Your task to perform on an android device: turn on the 12-hour format for clock Image 0: 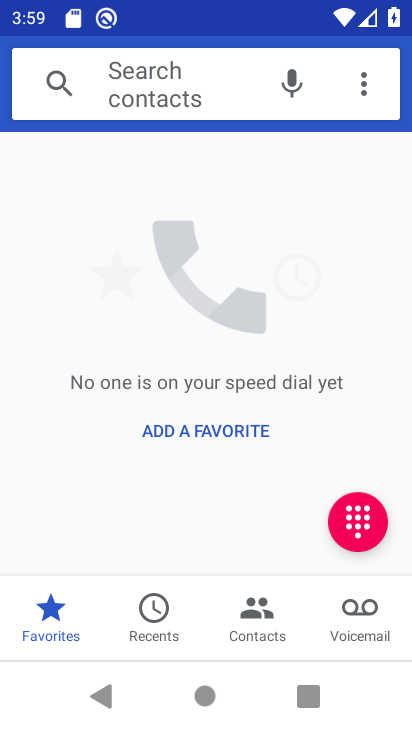
Step 0: drag from (154, 611) to (337, 121)
Your task to perform on an android device: turn on the 12-hour format for clock Image 1: 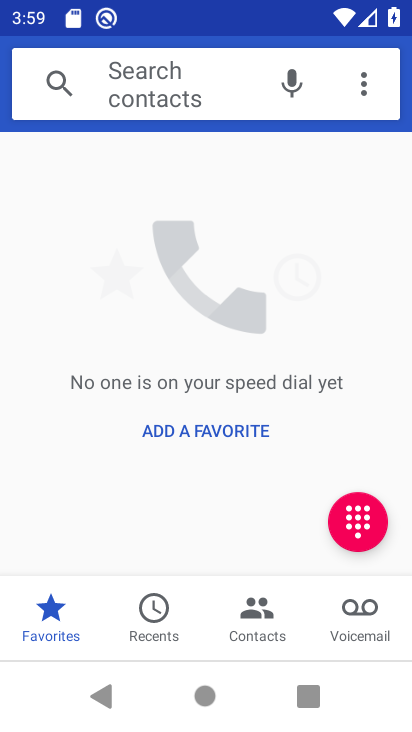
Step 1: press home button
Your task to perform on an android device: turn on the 12-hour format for clock Image 2: 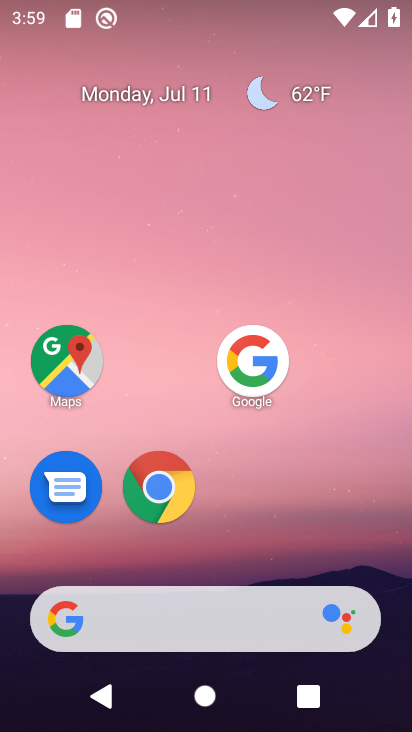
Step 2: drag from (174, 619) to (292, 140)
Your task to perform on an android device: turn on the 12-hour format for clock Image 3: 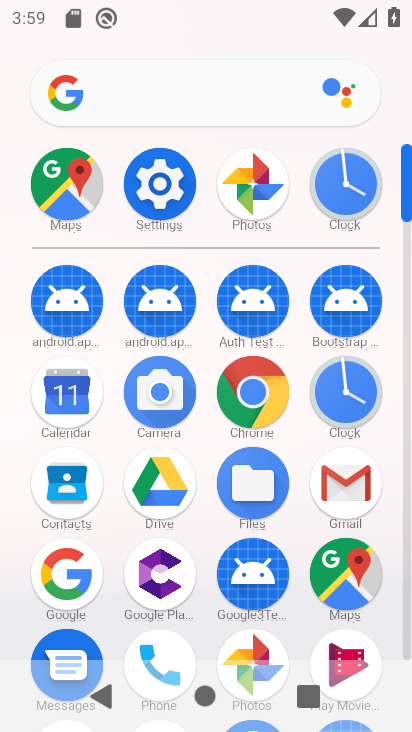
Step 3: click (344, 189)
Your task to perform on an android device: turn on the 12-hour format for clock Image 4: 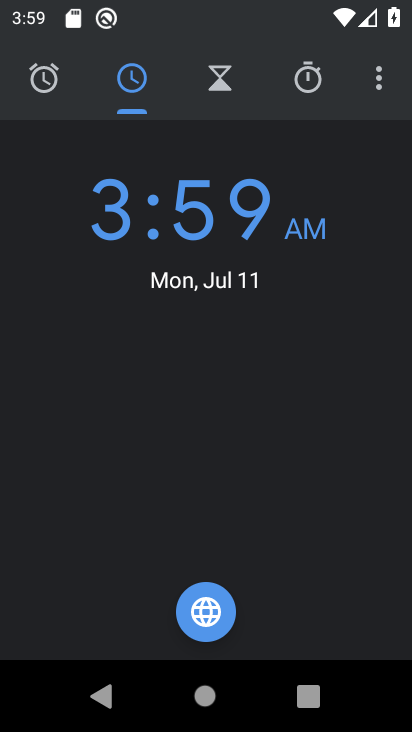
Step 4: click (375, 75)
Your task to perform on an android device: turn on the 12-hour format for clock Image 5: 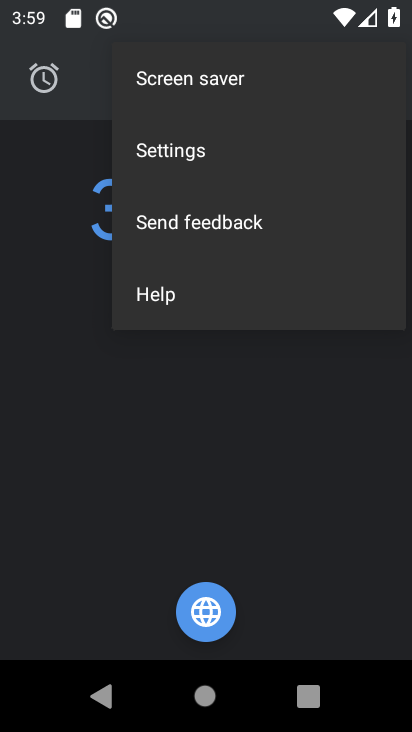
Step 5: click (178, 150)
Your task to perform on an android device: turn on the 12-hour format for clock Image 6: 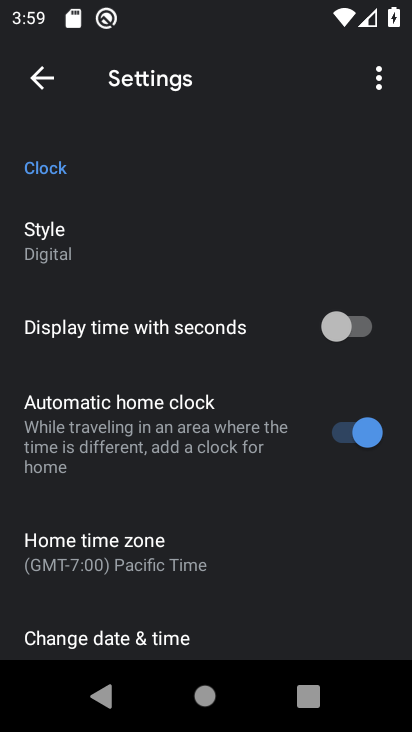
Step 6: drag from (211, 580) to (332, 148)
Your task to perform on an android device: turn on the 12-hour format for clock Image 7: 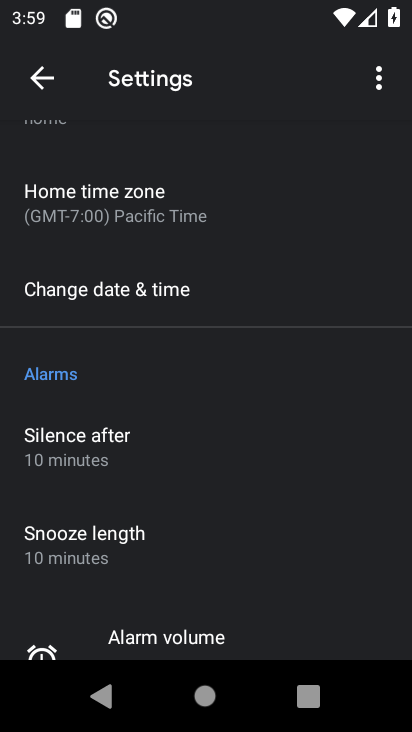
Step 7: click (157, 284)
Your task to perform on an android device: turn on the 12-hour format for clock Image 8: 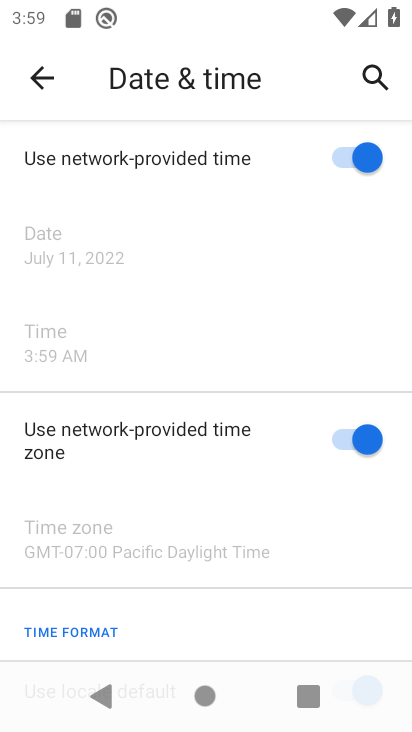
Step 8: task complete